Your task to perform on an android device: What's the weather? Image 0: 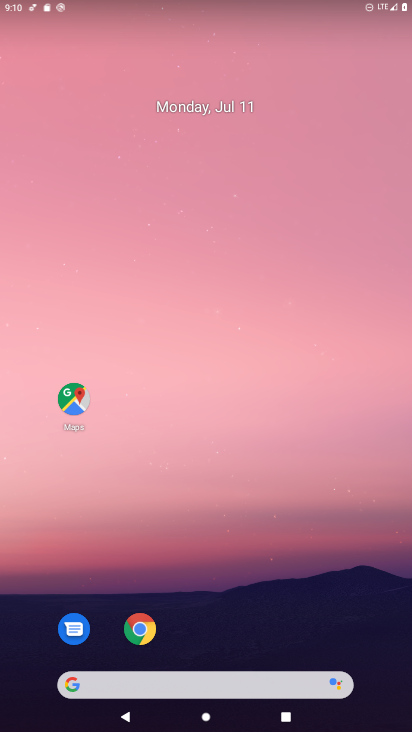
Step 0: click (131, 683)
Your task to perform on an android device: What's the weather? Image 1: 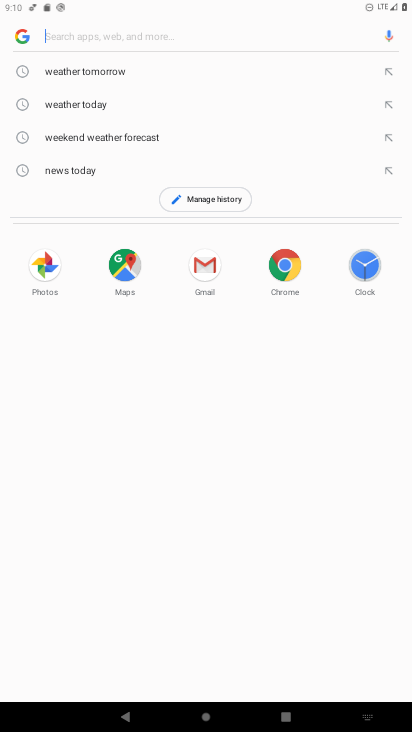
Step 1: click (122, 111)
Your task to perform on an android device: What's the weather? Image 2: 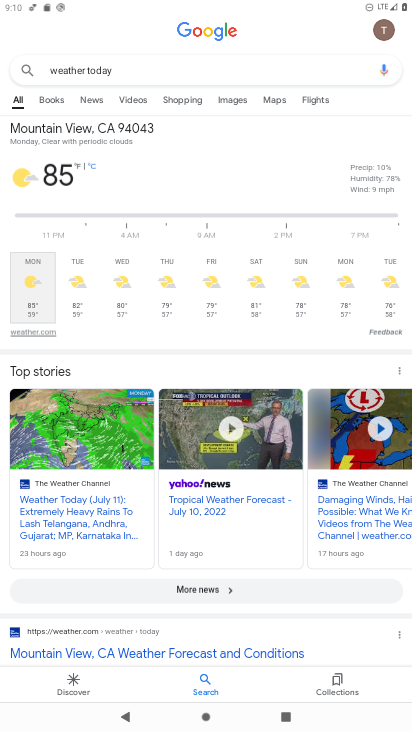
Step 2: task complete